Your task to perform on an android device: Go to Reddit.com Image 0: 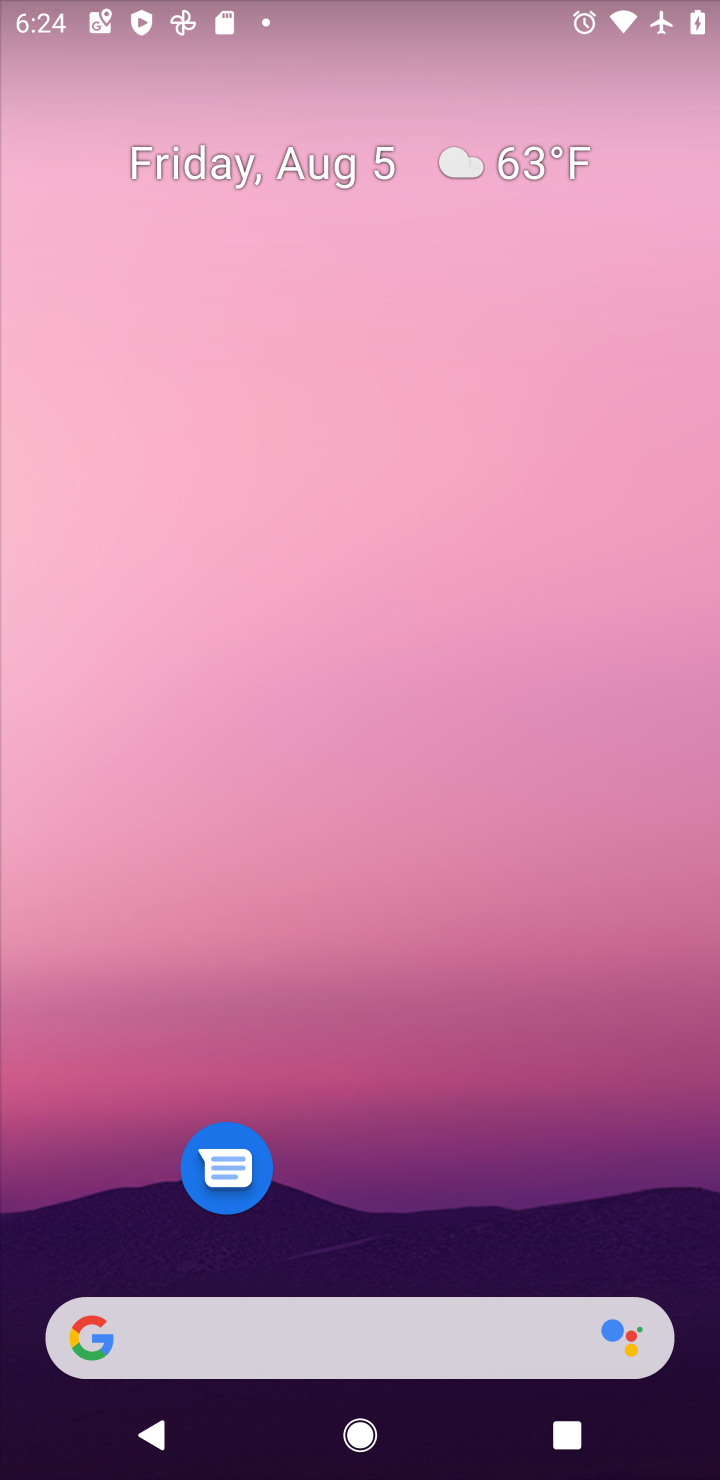
Step 0: click (86, 1333)
Your task to perform on an android device: Go to Reddit.com Image 1: 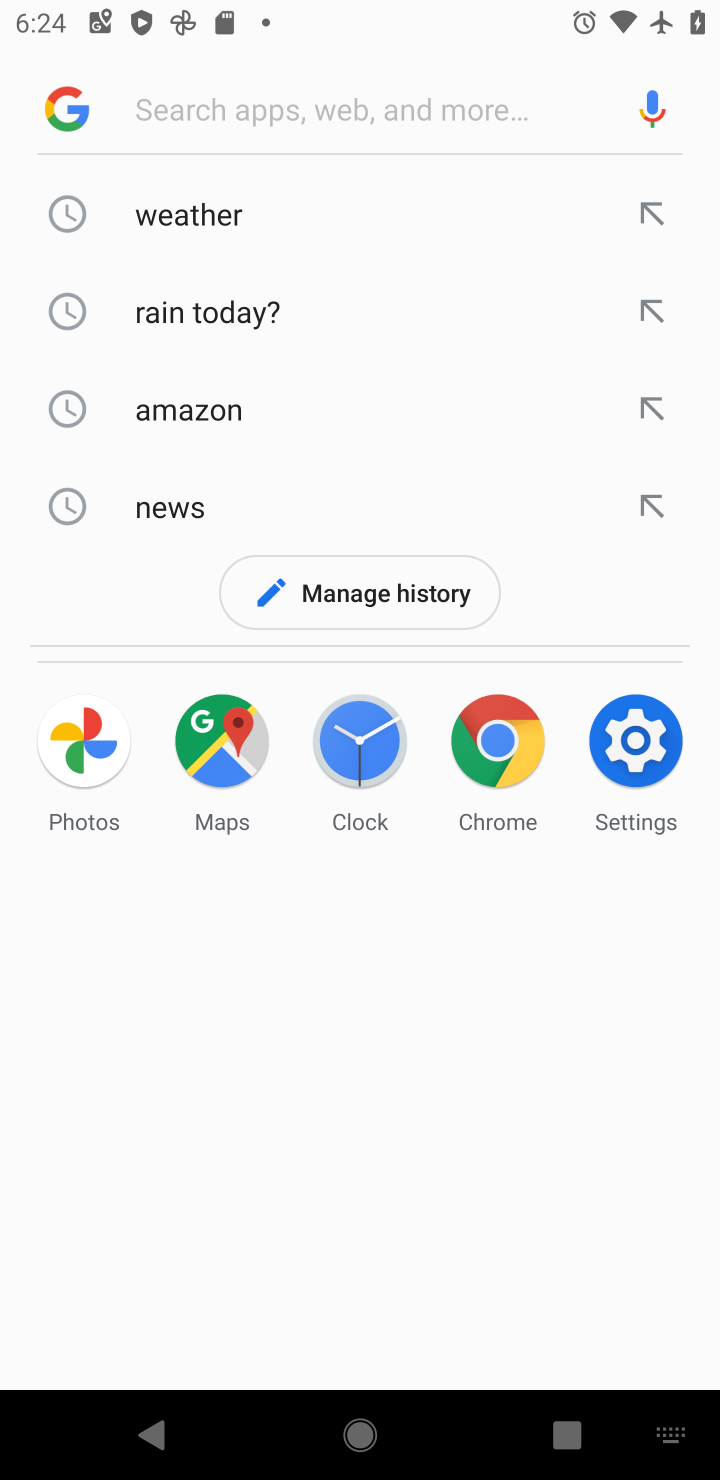
Step 1: type " Reddit.com"
Your task to perform on an android device: Go to Reddit.com Image 2: 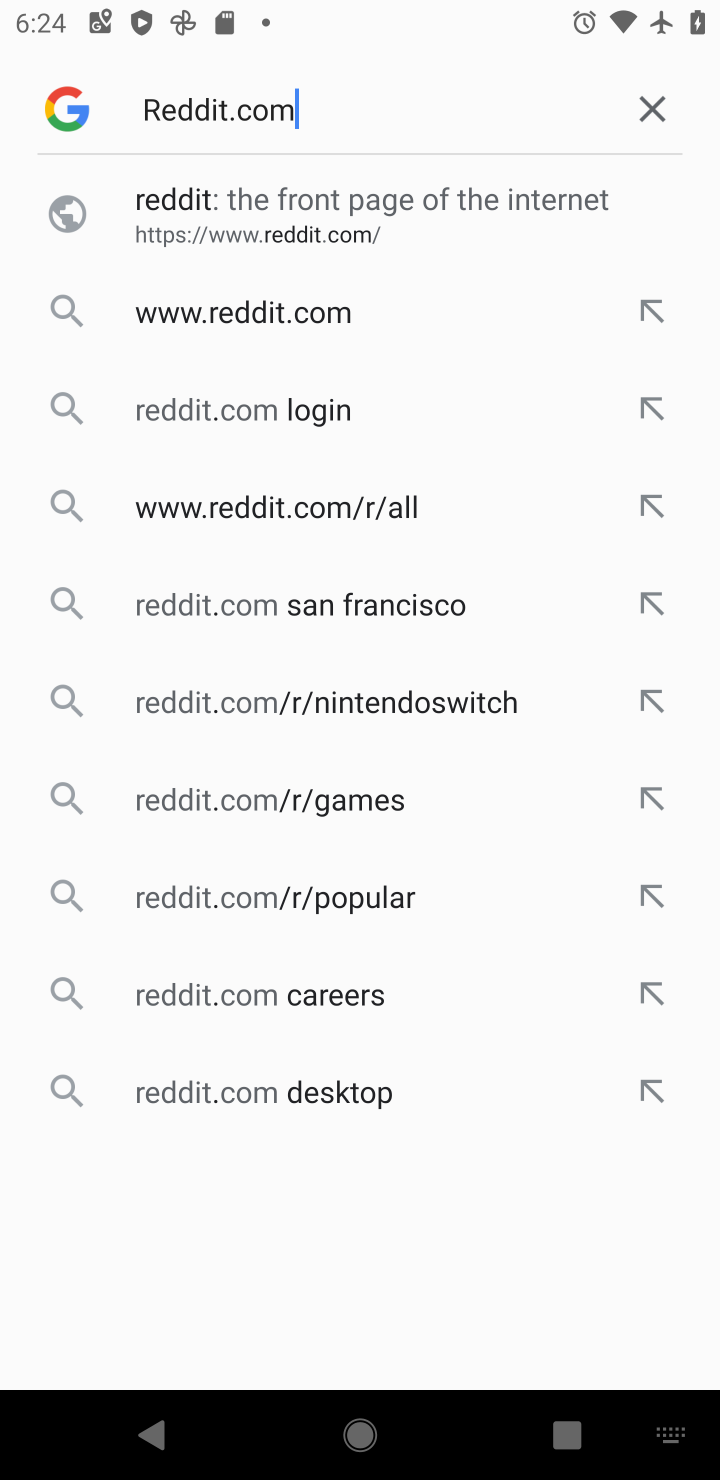
Step 2: press enter
Your task to perform on an android device: Go to Reddit.com Image 3: 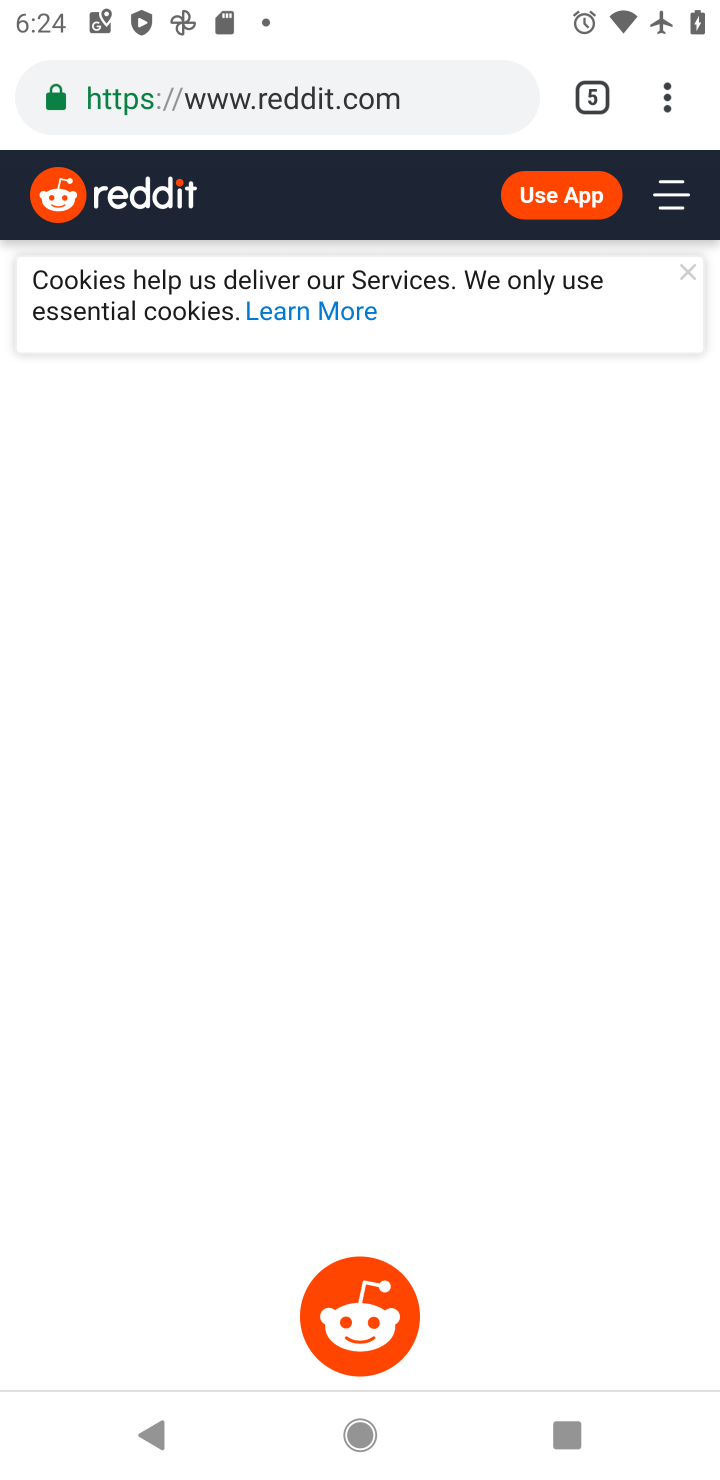
Step 3: task complete